Your task to perform on an android device: Go to sound settings Image 0: 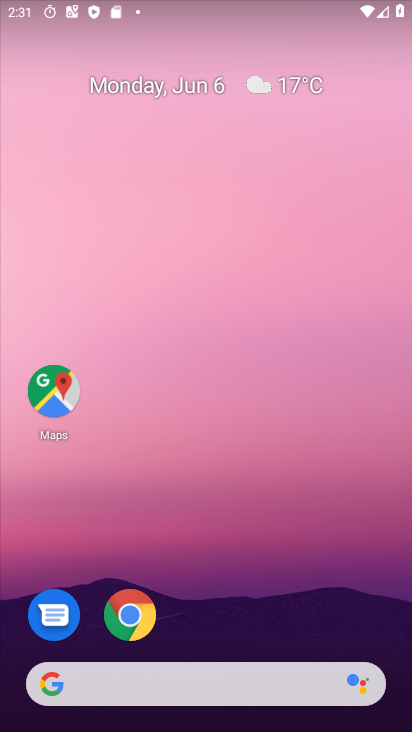
Step 0: drag from (234, 589) to (241, 151)
Your task to perform on an android device: Go to sound settings Image 1: 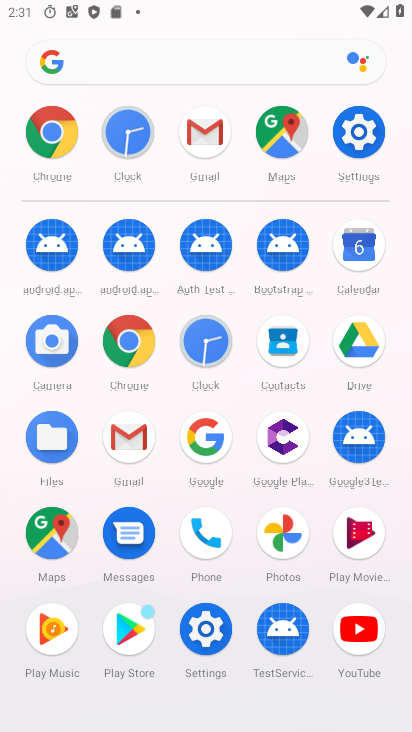
Step 1: click (203, 641)
Your task to perform on an android device: Go to sound settings Image 2: 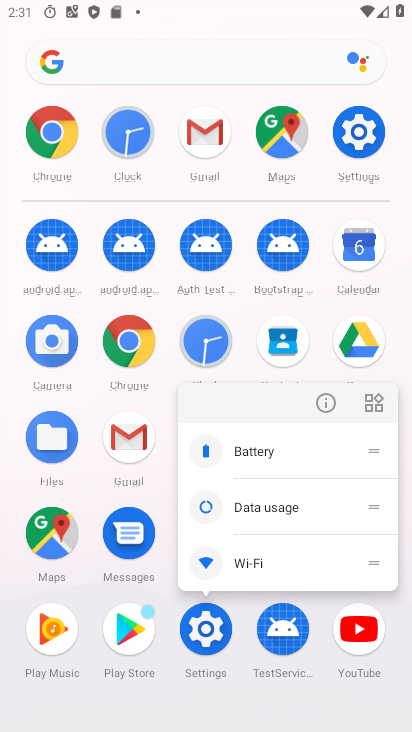
Step 2: click (322, 403)
Your task to perform on an android device: Go to sound settings Image 3: 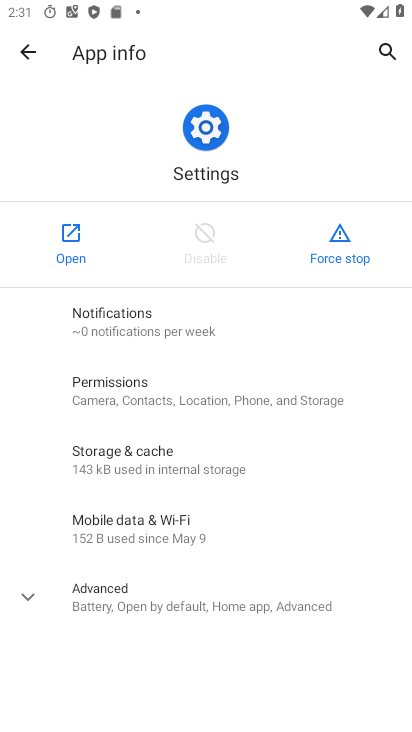
Step 3: click (77, 201)
Your task to perform on an android device: Go to sound settings Image 4: 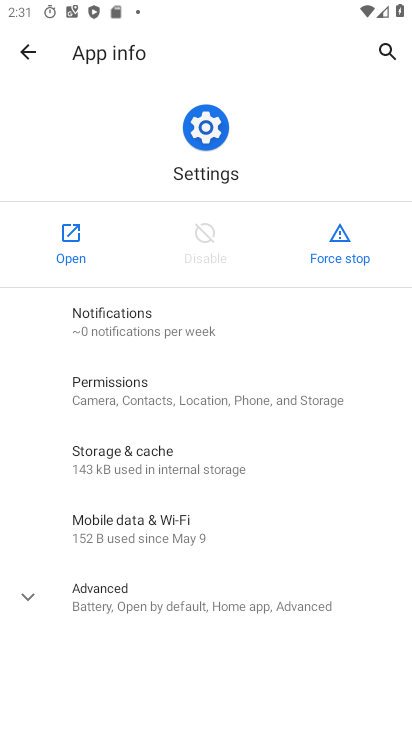
Step 4: click (63, 255)
Your task to perform on an android device: Go to sound settings Image 5: 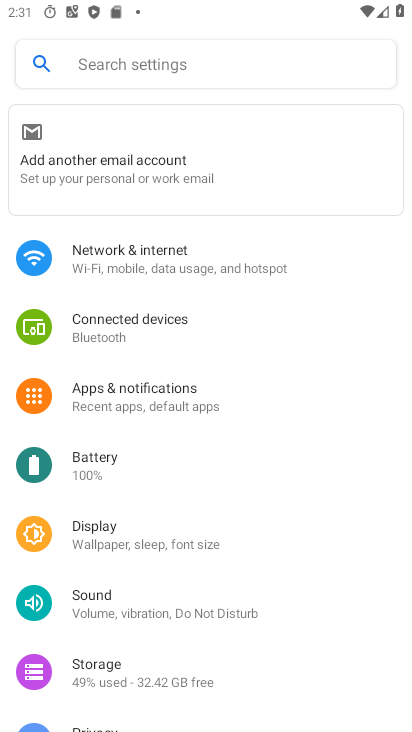
Step 5: task complete